Your task to perform on an android device: see sites visited before in the chrome app Image 0: 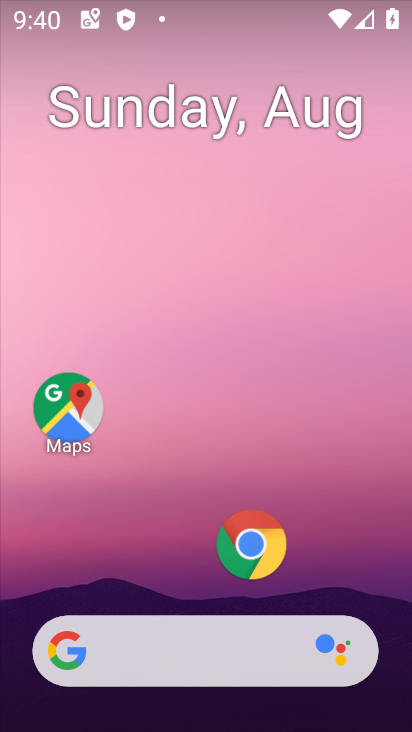
Step 0: drag from (232, 599) to (322, 30)
Your task to perform on an android device: see sites visited before in the chrome app Image 1: 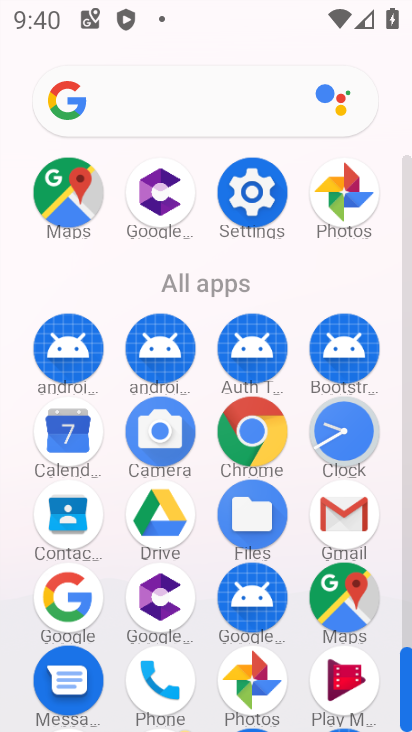
Step 1: click (232, 435)
Your task to perform on an android device: see sites visited before in the chrome app Image 2: 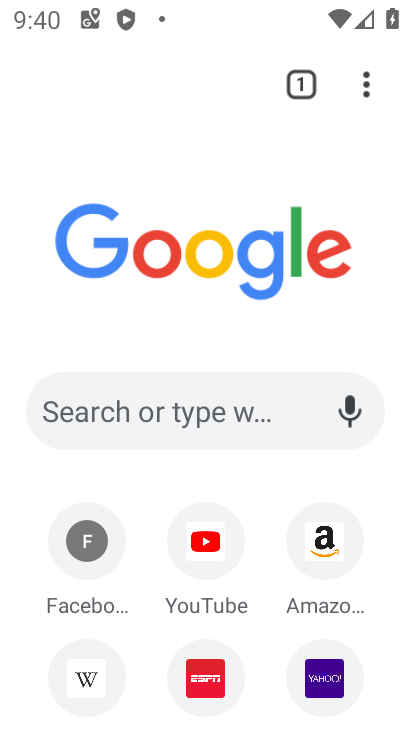
Step 2: task complete